Your task to perform on an android device: allow notifications from all sites in the chrome app Image 0: 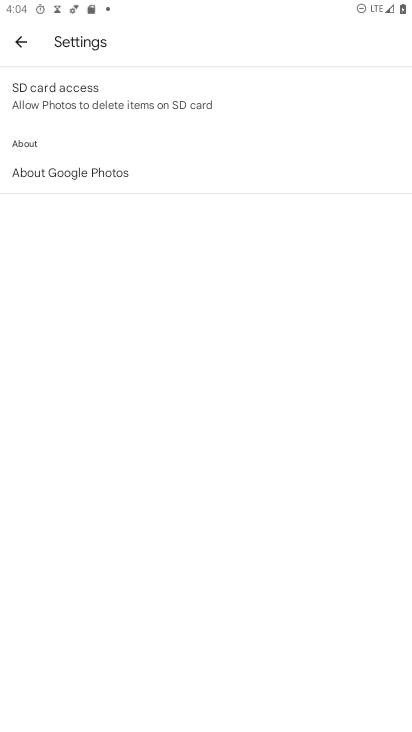
Step 0: press home button
Your task to perform on an android device: allow notifications from all sites in the chrome app Image 1: 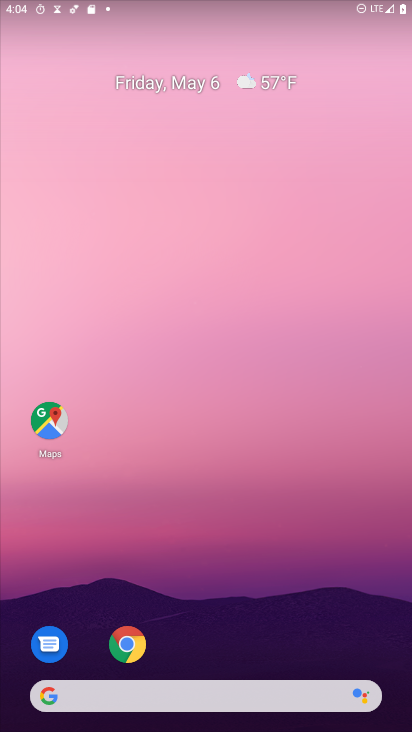
Step 1: click (126, 643)
Your task to perform on an android device: allow notifications from all sites in the chrome app Image 2: 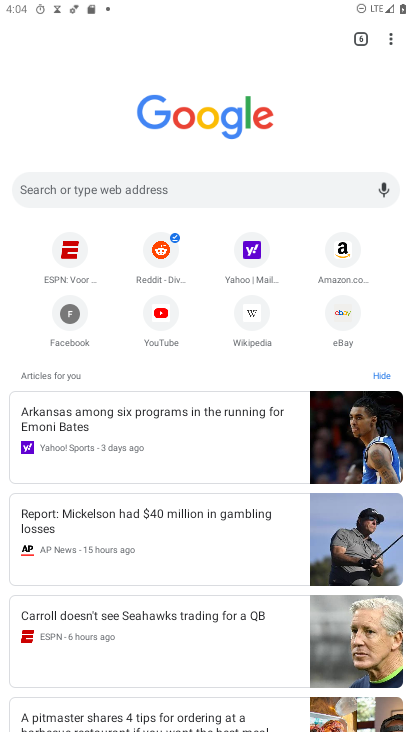
Step 2: click (390, 44)
Your task to perform on an android device: allow notifications from all sites in the chrome app Image 3: 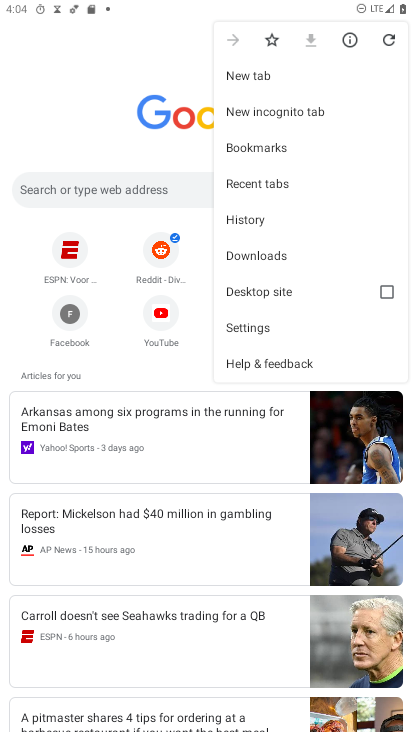
Step 3: click (260, 326)
Your task to perform on an android device: allow notifications from all sites in the chrome app Image 4: 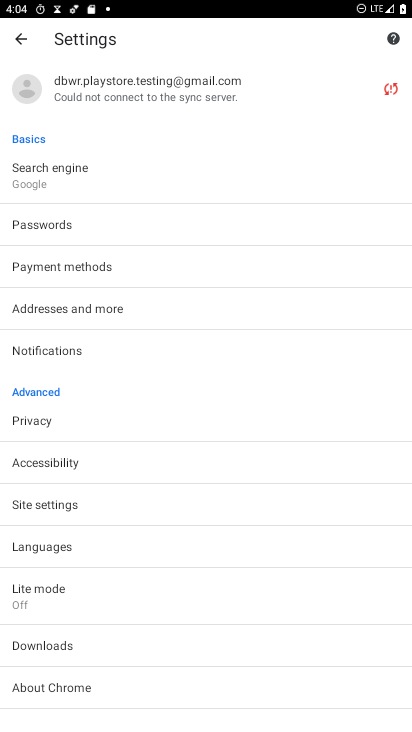
Step 4: click (41, 502)
Your task to perform on an android device: allow notifications from all sites in the chrome app Image 5: 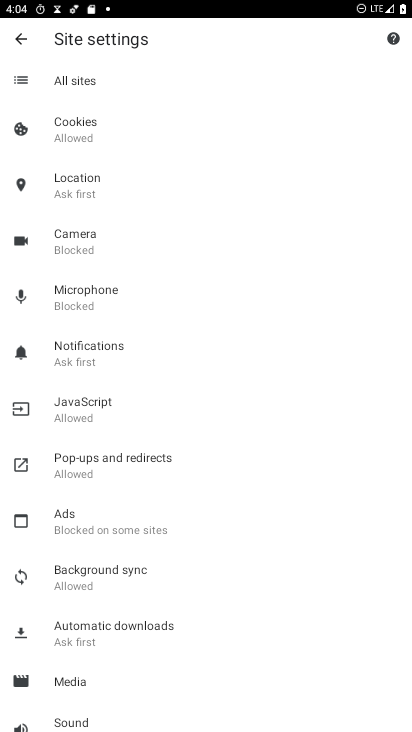
Step 5: click (92, 345)
Your task to perform on an android device: allow notifications from all sites in the chrome app Image 6: 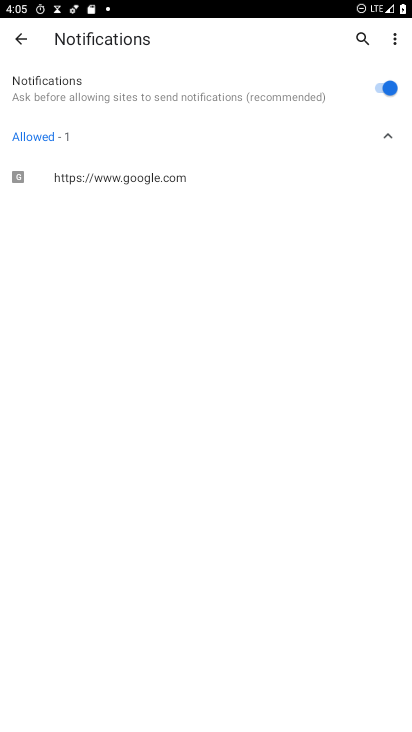
Step 6: task complete